Your task to perform on an android device: Open display settings Image 0: 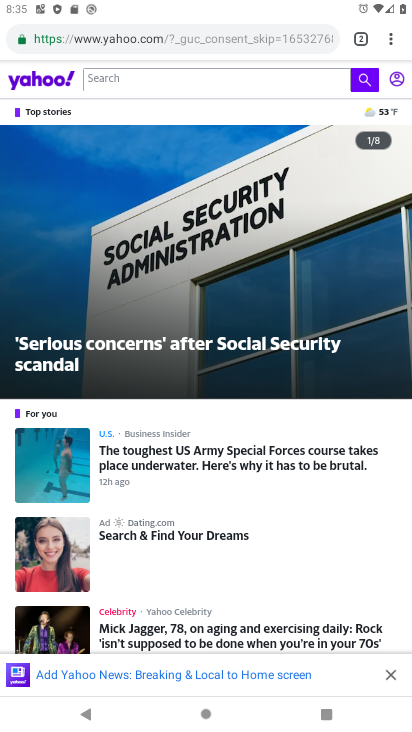
Step 0: press home button
Your task to perform on an android device: Open display settings Image 1: 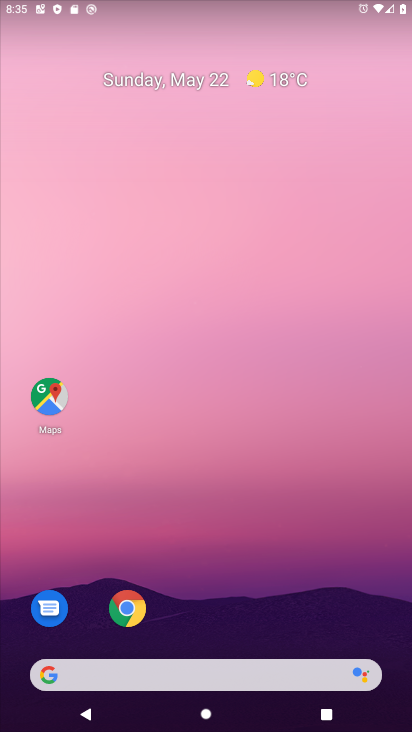
Step 1: drag from (222, 724) to (185, 1)
Your task to perform on an android device: Open display settings Image 2: 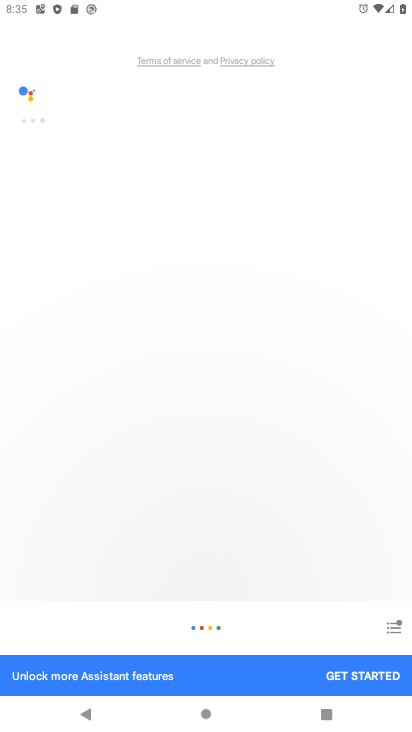
Step 2: press home button
Your task to perform on an android device: Open display settings Image 3: 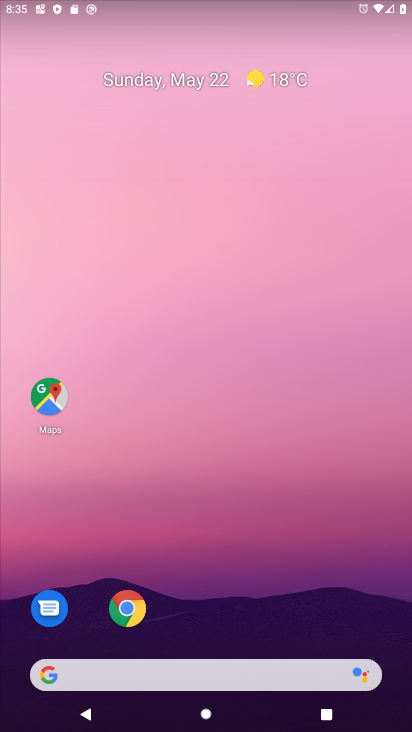
Step 3: drag from (227, 729) to (178, 159)
Your task to perform on an android device: Open display settings Image 4: 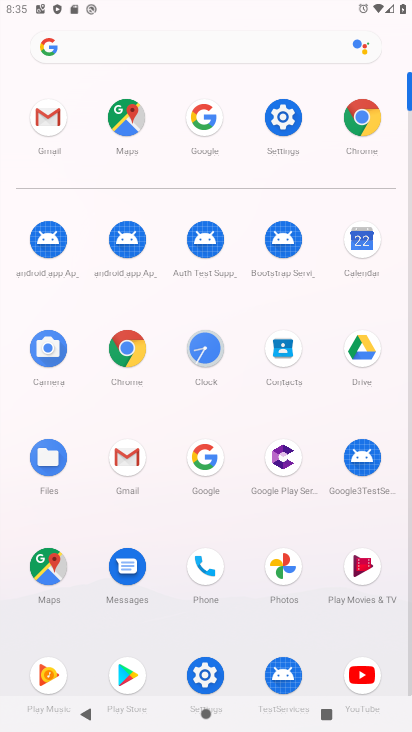
Step 4: click (287, 112)
Your task to perform on an android device: Open display settings Image 5: 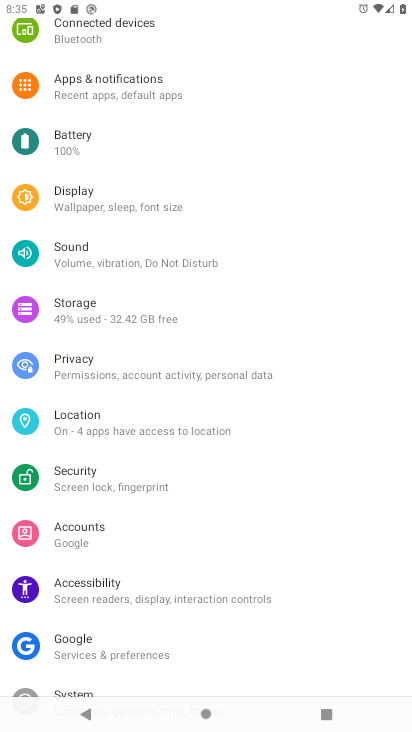
Step 5: click (69, 199)
Your task to perform on an android device: Open display settings Image 6: 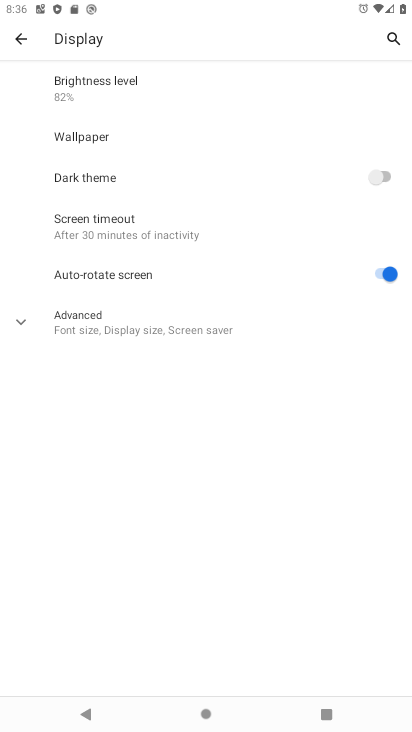
Step 6: task complete